Your task to perform on an android device: See recent photos Image 0: 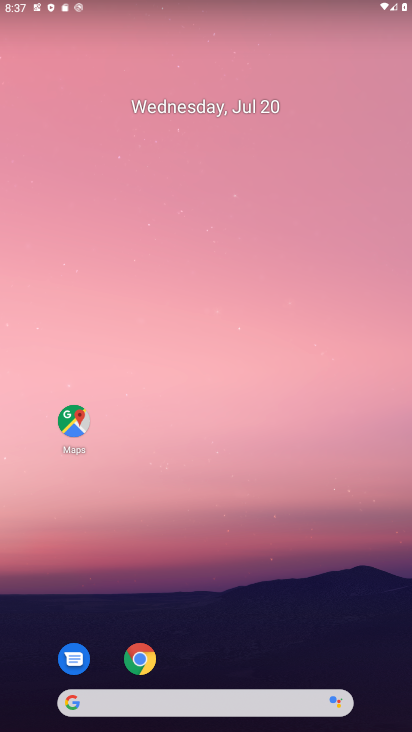
Step 0: drag from (261, 625) to (252, 31)
Your task to perform on an android device: See recent photos Image 1: 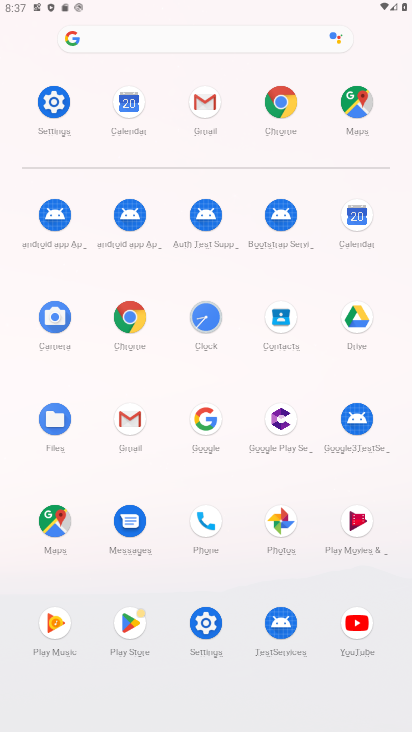
Step 1: click (283, 521)
Your task to perform on an android device: See recent photos Image 2: 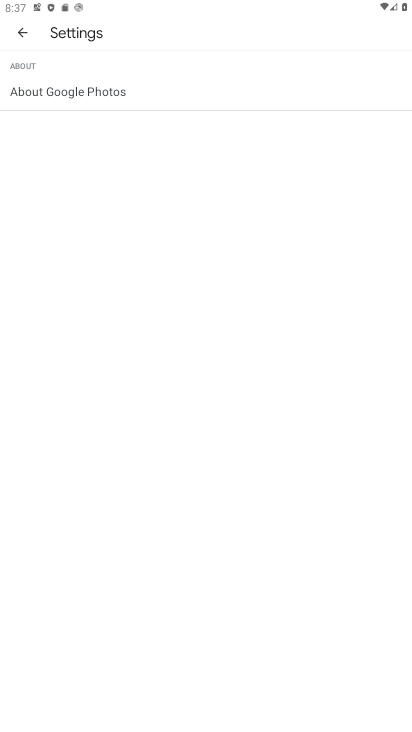
Step 2: click (26, 27)
Your task to perform on an android device: See recent photos Image 3: 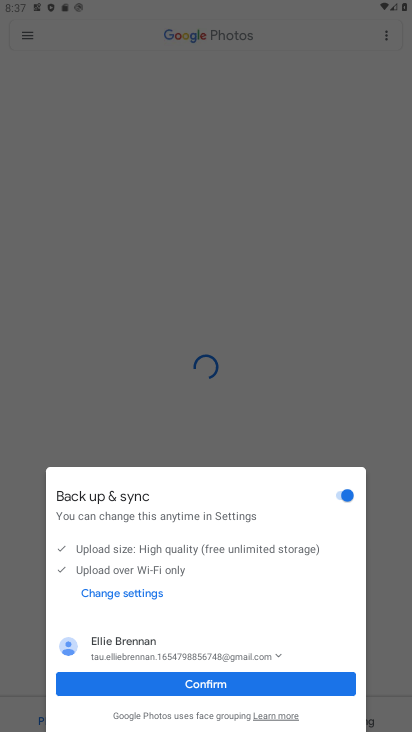
Step 3: click (120, 682)
Your task to perform on an android device: See recent photos Image 4: 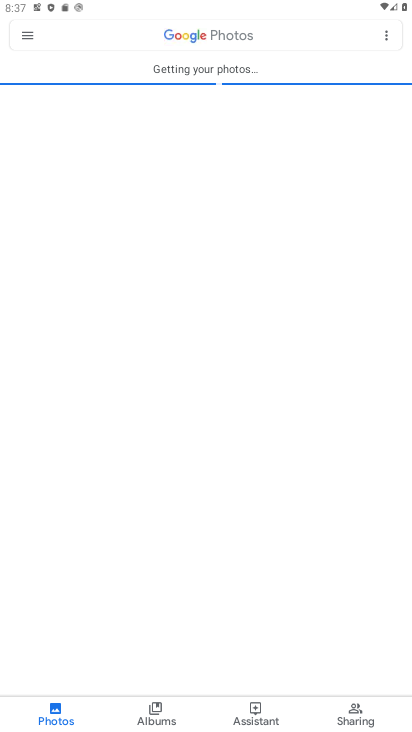
Step 4: click (60, 719)
Your task to perform on an android device: See recent photos Image 5: 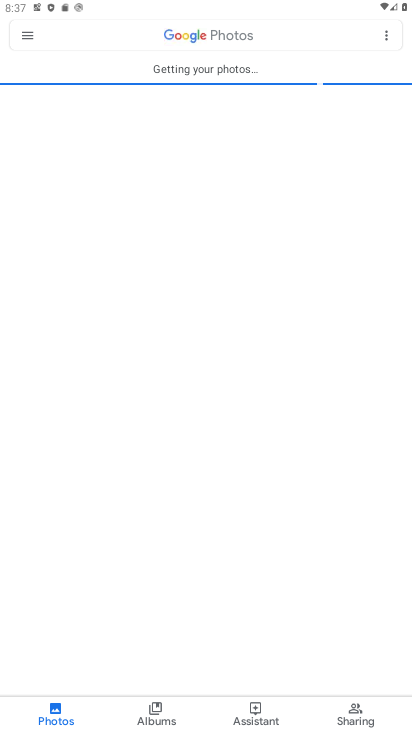
Step 5: click (60, 719)
Your task to perform on an android device: See recent photos Image 6: 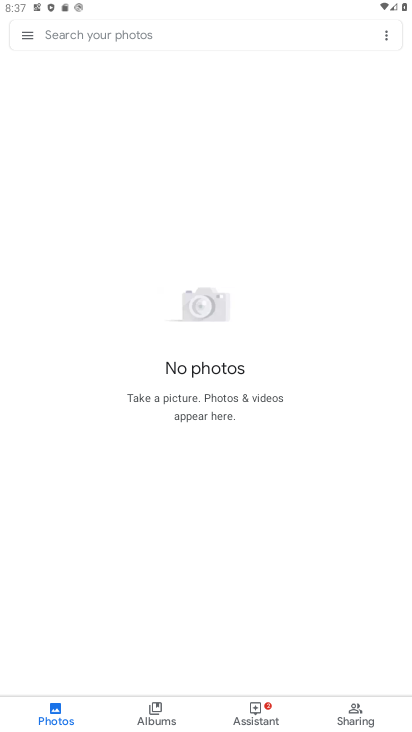
Step 6: task complete